Your task to perform on an android device: Open the web browser Image 0: 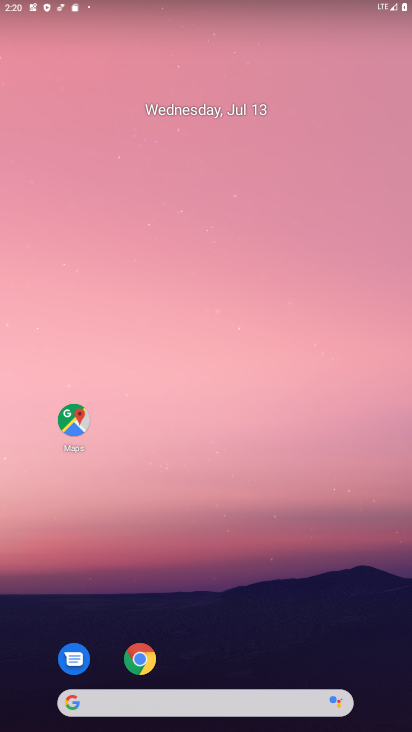
Step 0: click (139, 655)
Your task to perform on an android device: Open the web browser Image 1: 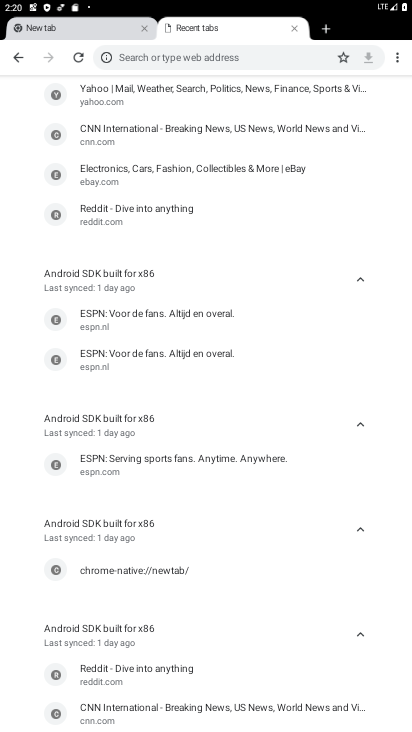
Step 1: click (76, 30)
Your task to perform on an android device: Open the web browser Image 2: 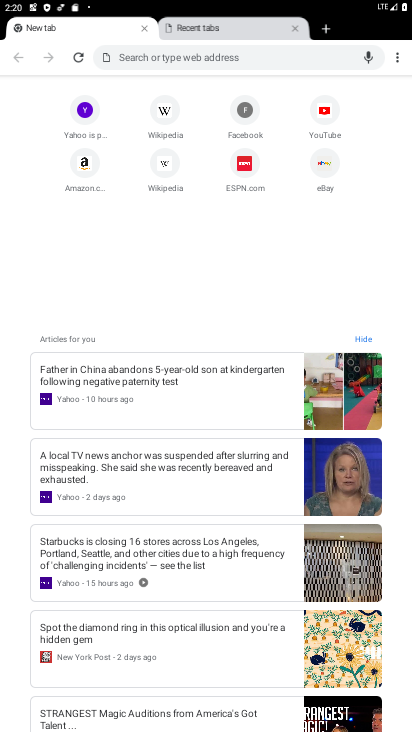
Step 2: task complete